Your task to perform on an android device: Open Google Chrome and click the shortcut for Amazon.com Image 0: 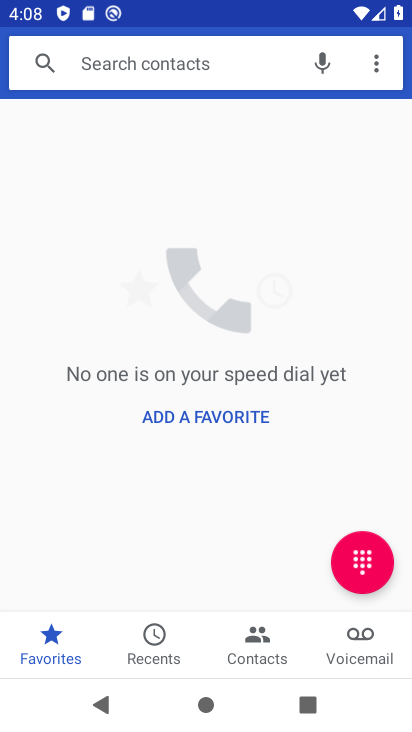
Step 0: press home button
Your task to perform on an android device: Open Google Chrome and click the shortcut for Amazon.com Image 1: 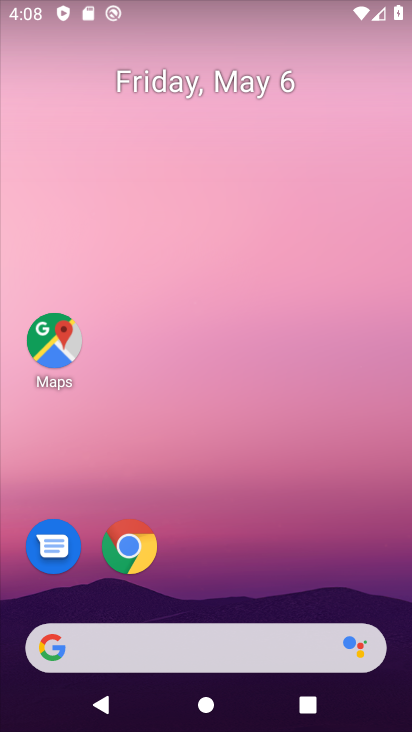
Step 1: drag from (206, 582) to (214, 174)
Your task to perform on an android device: Open Google Chrome and click the shortcut for Amazon.com Image 2: 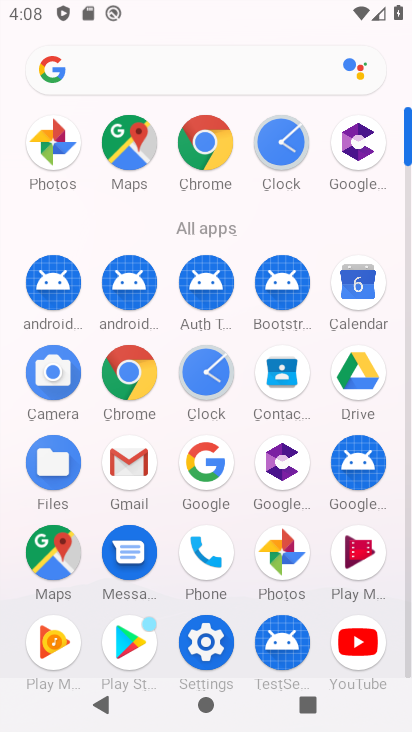
Step 2: click (205, 163)
Your task to perform on an android device: Open Google Chrome and click the shortcut for Amazon.com Image 3: 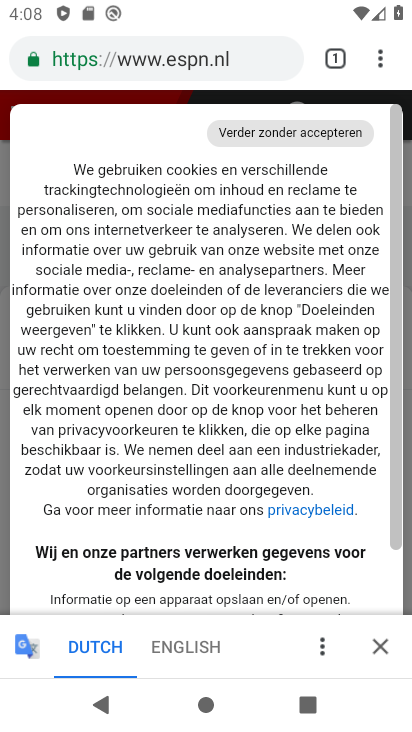
Step 3: click (335, 57)
Your task to perform on an android device: Open Google Chrome and click the shortcut for Amazon.com Image 4: 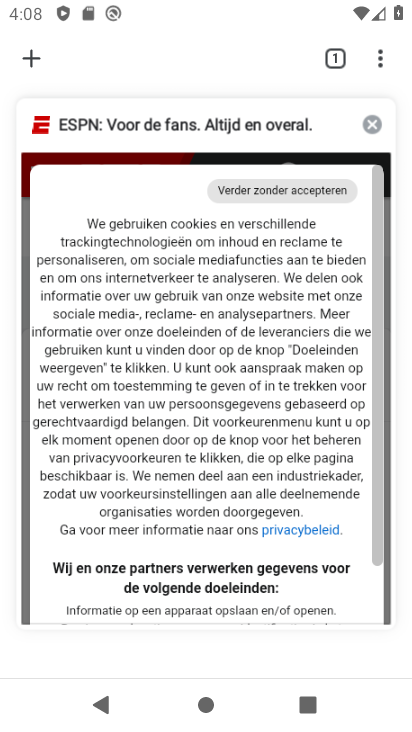
Step 4: click (335, 57)
Your task to perform on an android device: Open Google Chrome and click the shortcut for Amazon.com Image 5: 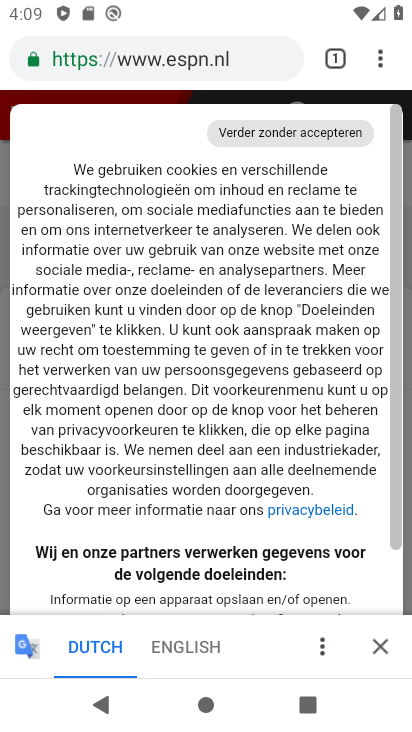
Step 5: click (331, 59)
Your task to perform on an android device: Open Google Chrome and click the shortcut for Amazon.com Image 6: 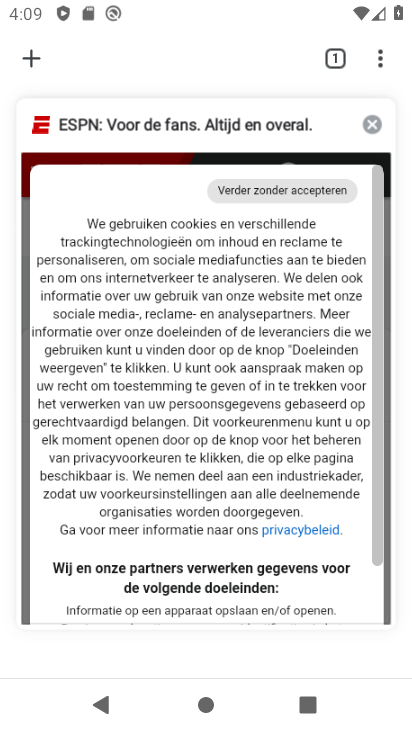
Step 6: click (34, 64)
Your task to perform on an android device: Open Google Chrome and click the shortcut for Amazon.com Image 7: 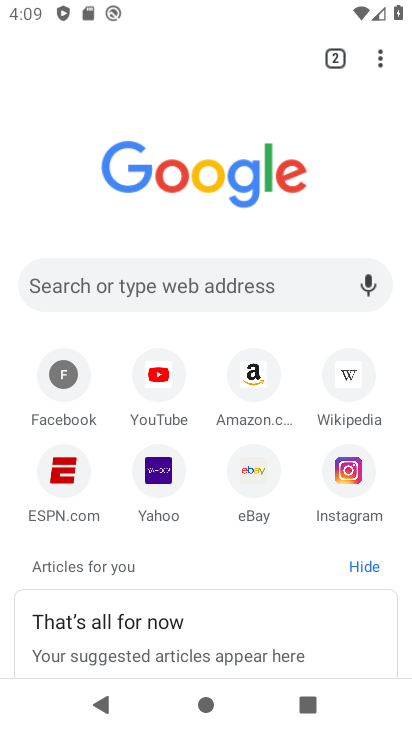
Step 7: click (236, 366)
Your task to perform on an android device: Open Google Chrome and click the shortcut for Amazon.com Image 8: 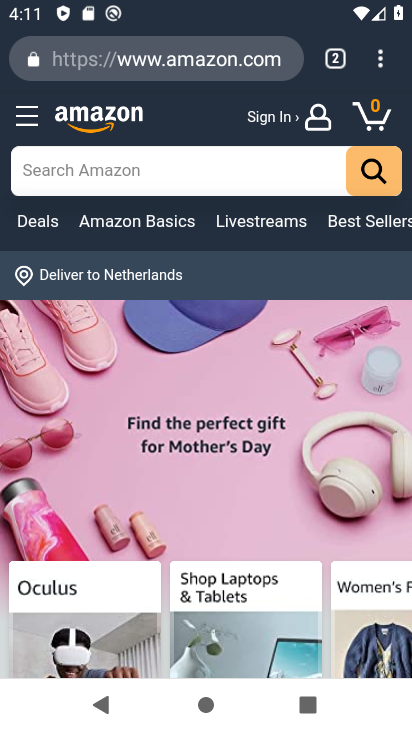
Step 8: task complete